Your task to perform on an android device: refresh tabs in the chrome app Image 0: 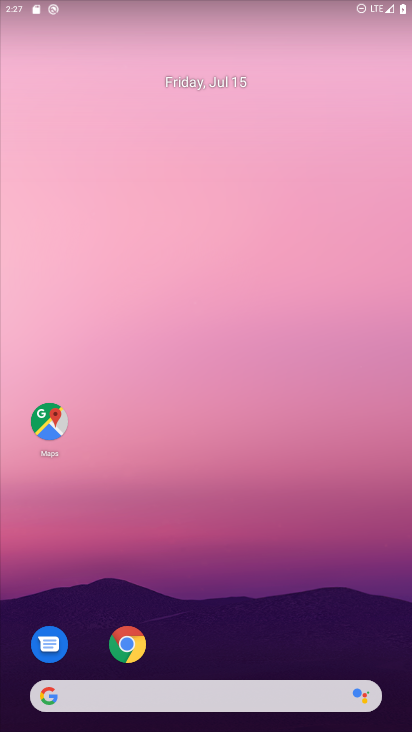
Step 0: click (115, 644)
Your task to perform on an android device: refresh tabs in the chrome app Image 1: 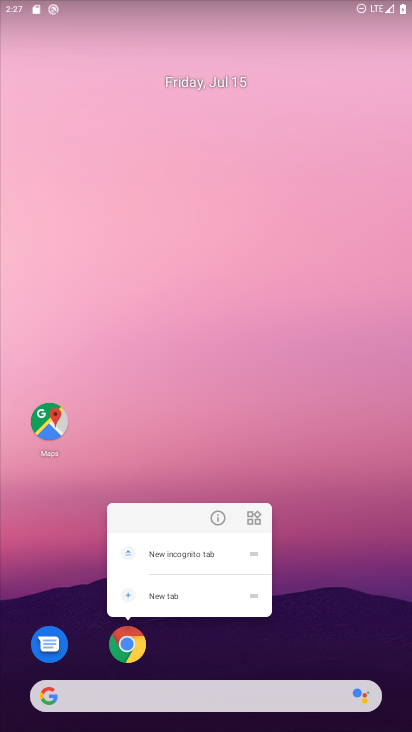
Step 1: click (123, 639)
Your task to perform on an android device: refresh tabs in the chrome app Image 2: 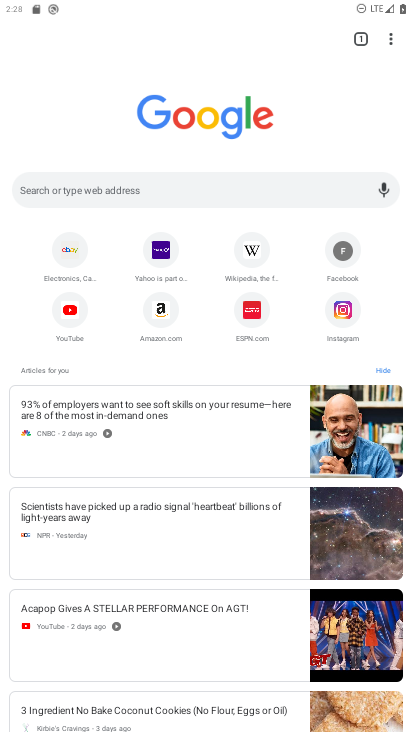
Step 2: click (358, 36)
Your task to perform on an android device: refresh tabs in the chrome app Image 3: 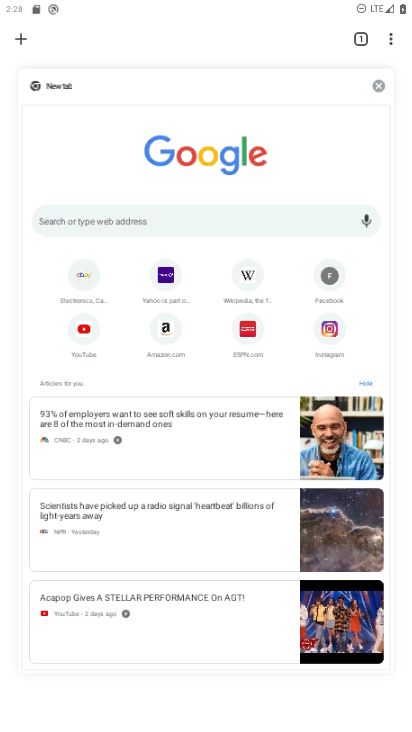
Step 3: click (387, 40)
Your task to perform on an android device: refresh tabs in the chrome app Image 4: 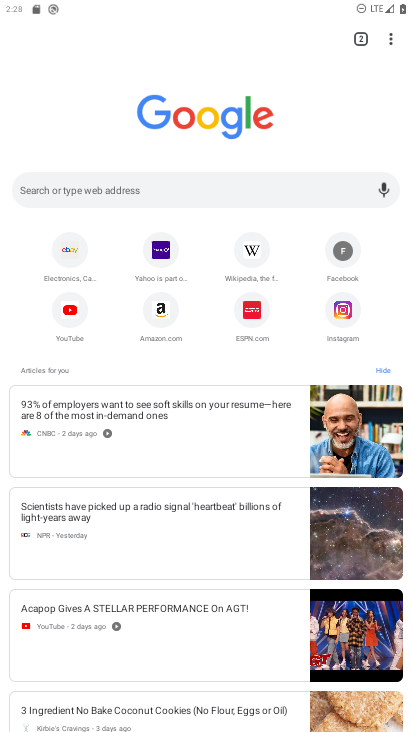
Step 4: click (388, 37)
Your task to perform on an android device: refresh tabs in the chrome app Image 5: 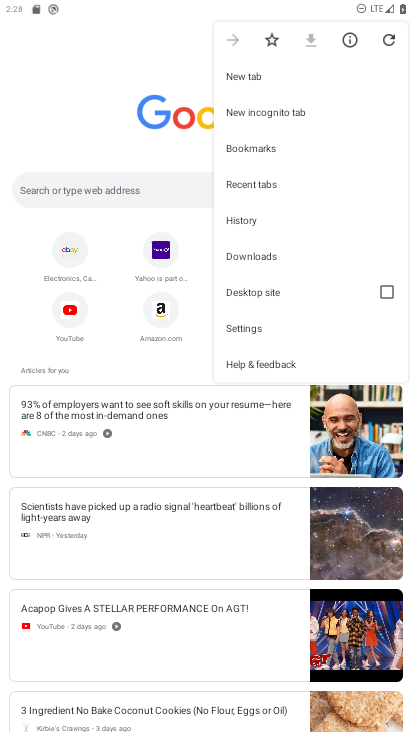
Step 5: click (387, 42)
Your task to perform on an android device: refresh tabs in the chrome app Image 6: 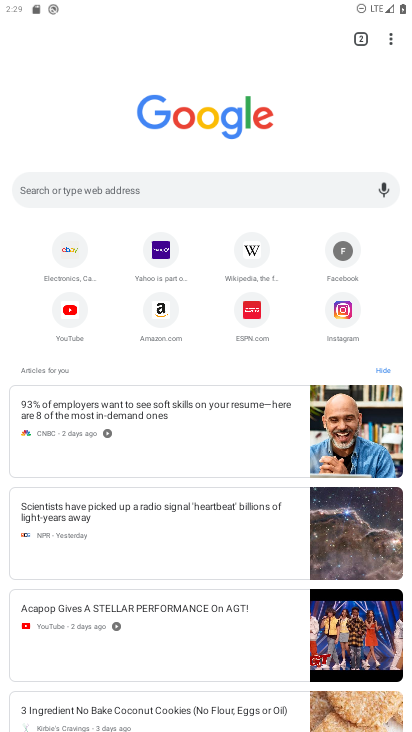
Step 6: task complete